Your task to perform on an android device: See recent photos Image 0: 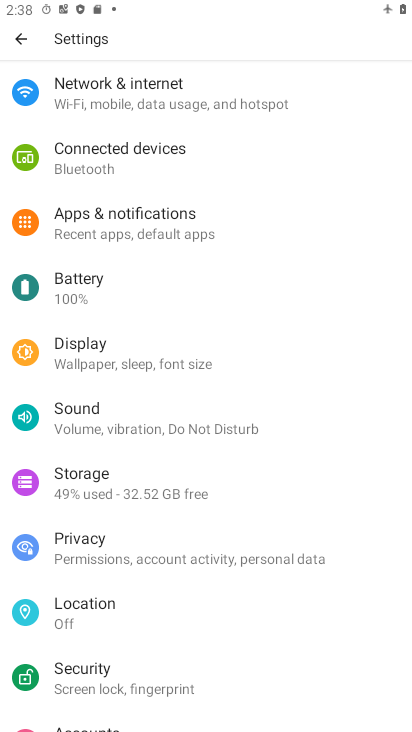
Step 0: press home button
Your task to perform on an android device: See recent photos Image 1: 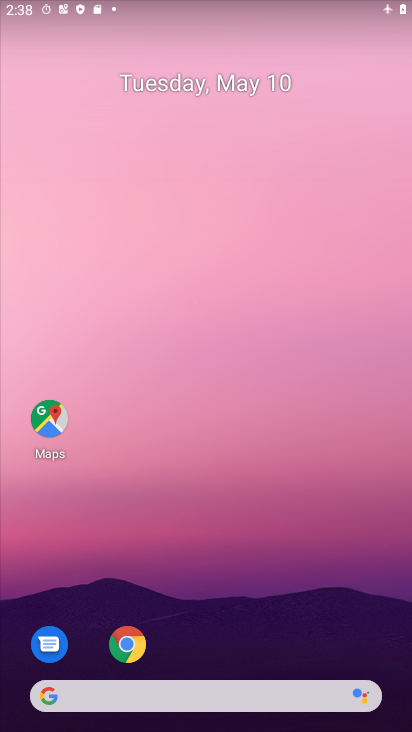
Step 1: drag from (238, 615) to (208, 266)
Your task to perform on an android device: See recent photos Image 2: 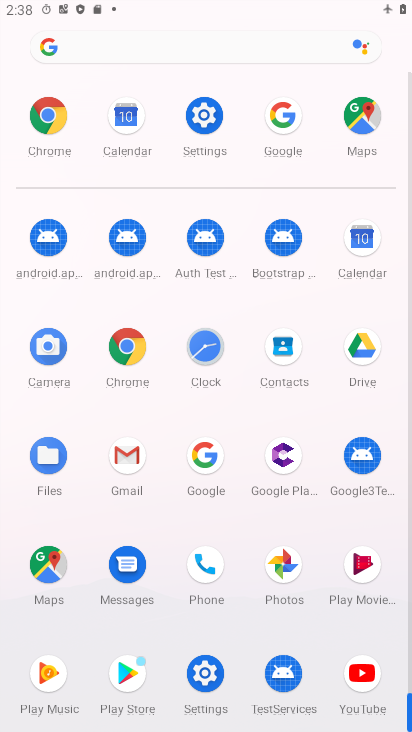
Step 2: click (290, 577)
Your task to perform on an android device: See recent photos Image 3: 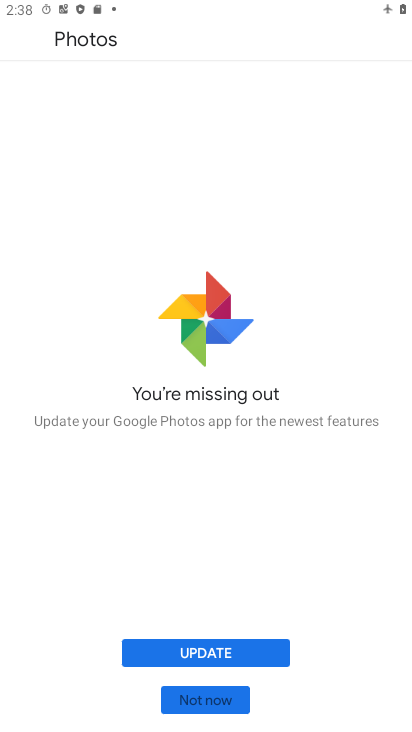
Step 3: click (234, 654)
Your task to perform on an android device: See recent photos Image 4: 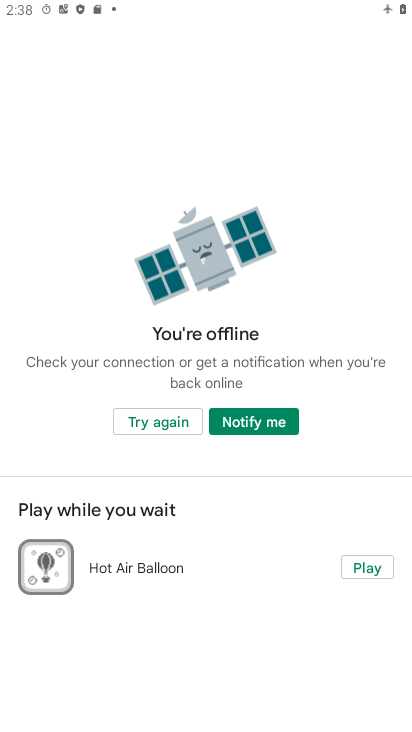
Step 4: press home button
Your task to perform on an android device: See recent photos Image 5: 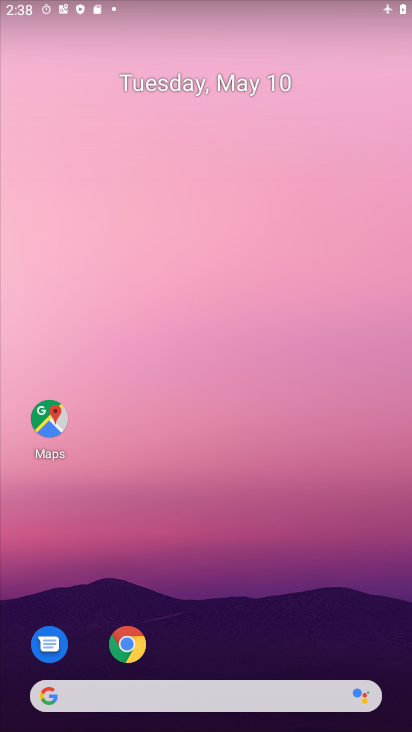
Step 5: drag from (252, 632) to (243, 168)
Your task to perform on an android device: See recent photos Image 6: 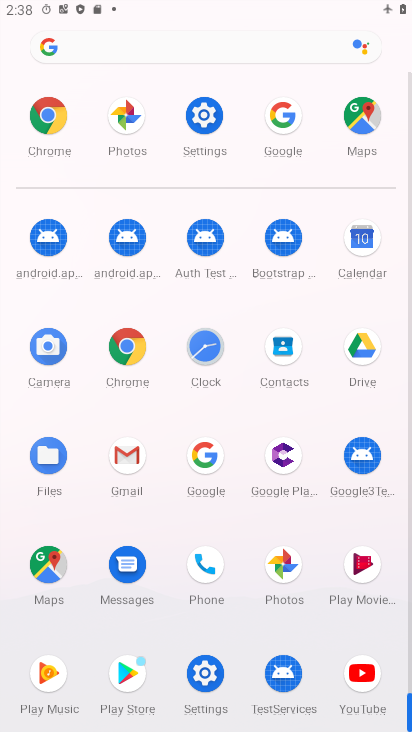
Step 6: click (289, 580)
Your task to perform on an android device: See recent photos Image 7: 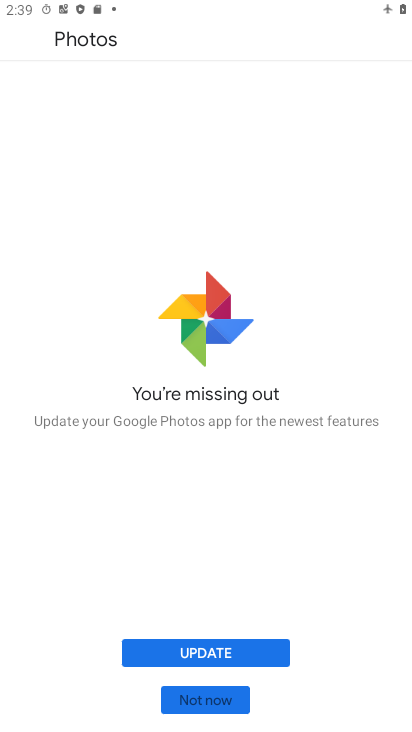
Step 7: click (251, 656)
Your task to perform on an android device: See recent photos Image 8: 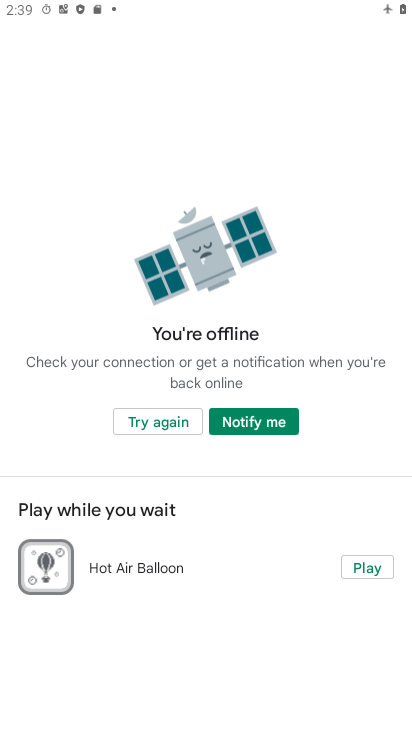
Step 8: task complete